Your task to perform on an android device: turn on notifications settings in the gmail app Image 0: 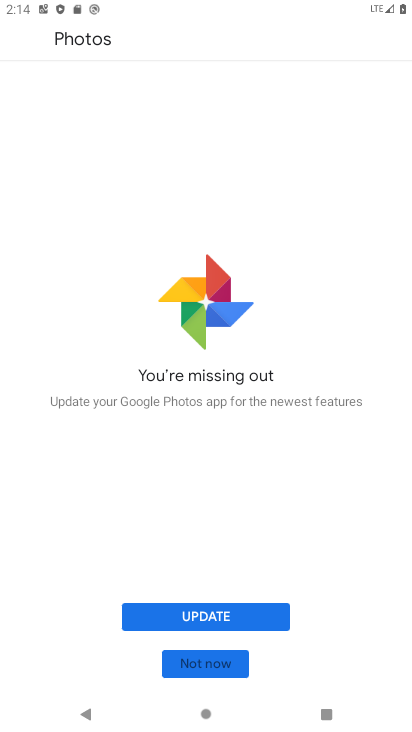
Step 0: press home button
Your task to perform on an android device: turn on notifications settings in the gmail app Image 1: 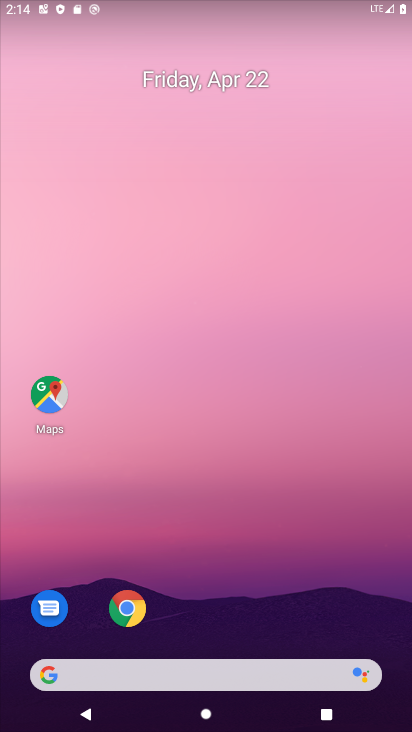
Step 1: drag from (257, 697) to (231, 278)
Your task to perform on an android device: turn on notifications settings in the gmail app Image 2: 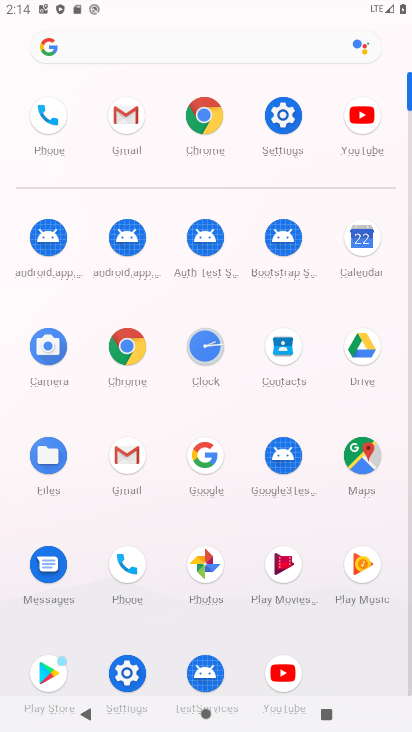
Step 2: click (129, 122)
Your task to perform on an android device: turn on notifications settings in the gmail app Image 3: 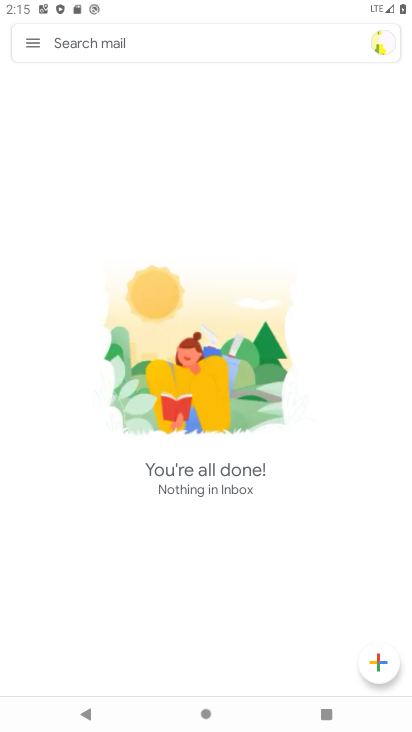
Step 3: click (32, 42)
Your task to perform on an android device: turn on notifications settings in the gmail app Image 4: 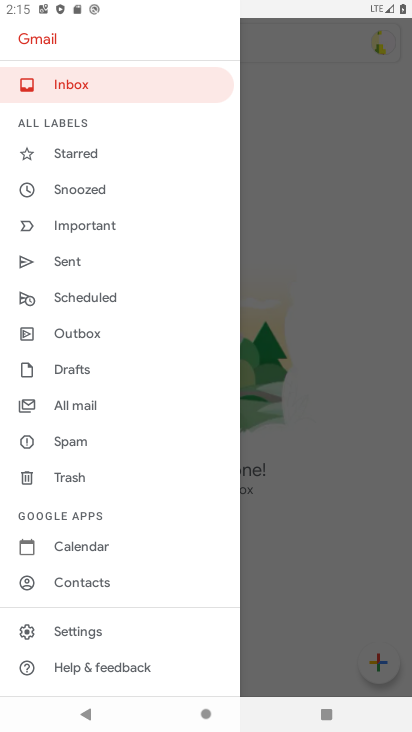
Step 4: click (75, 625)
Your task to perform on an android device: turn on notifications settings in the gmail app Image 5: 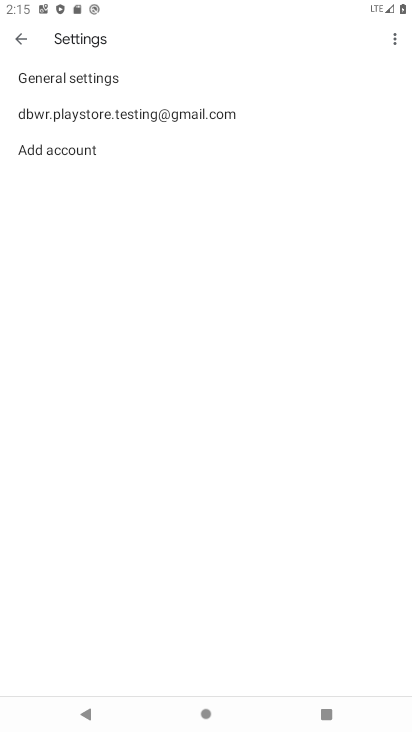
Step 5: click (113, 117)
Your task to perform on an android device: turn on notifications settings in the gmail app Image 6: 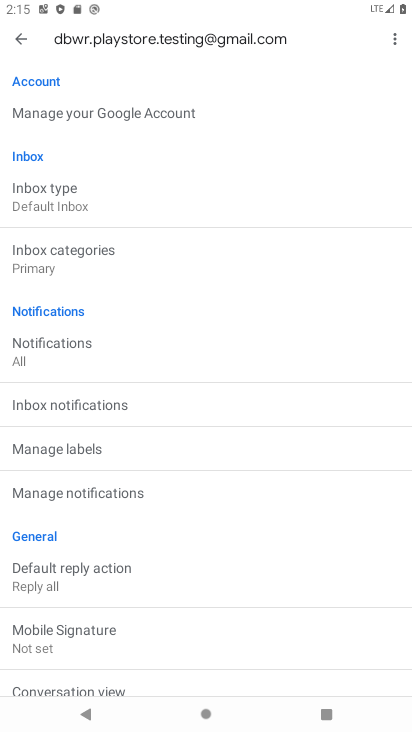
Step 6: click (52, 357)
Your task to perform on an android device: turn on notifications settings in the gmail app Image 7: 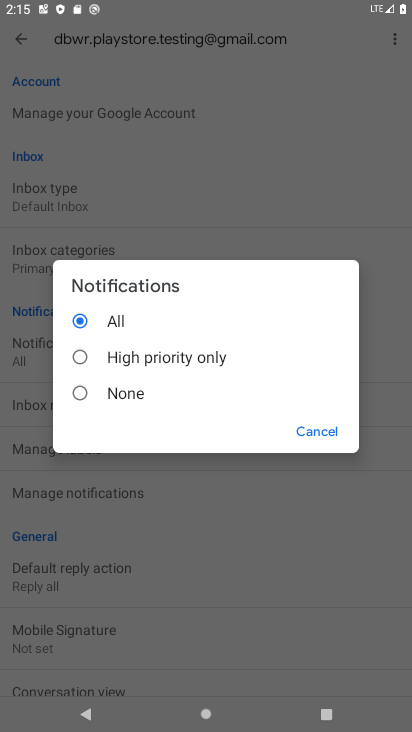
Step 7: task complete